Your task to perform on an android device: Open location settings Image 0: 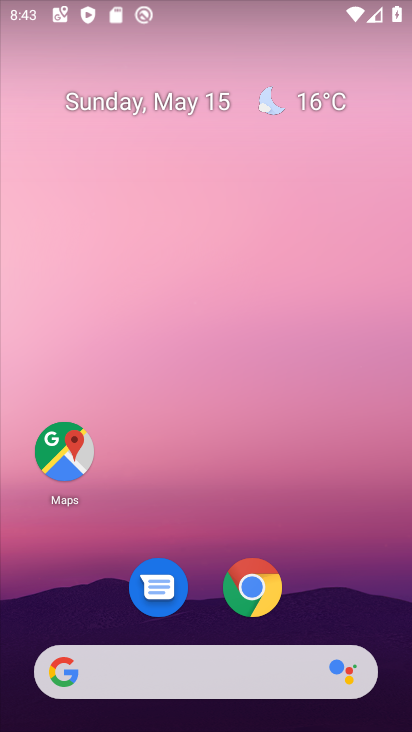
Step 0: drag from (316, 273) to (285, 22)
Your task to perform on an android device: Open location settings Image 1: 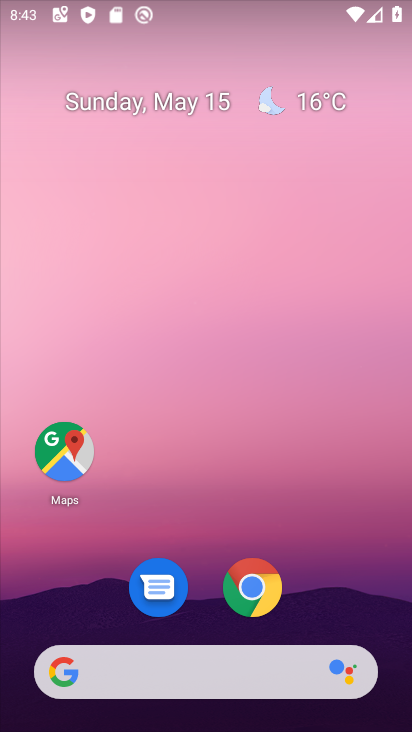
Step 1: drag from (344, 556) to (318, 0)
Your task to perform on an android device: Open location settings Image 2: 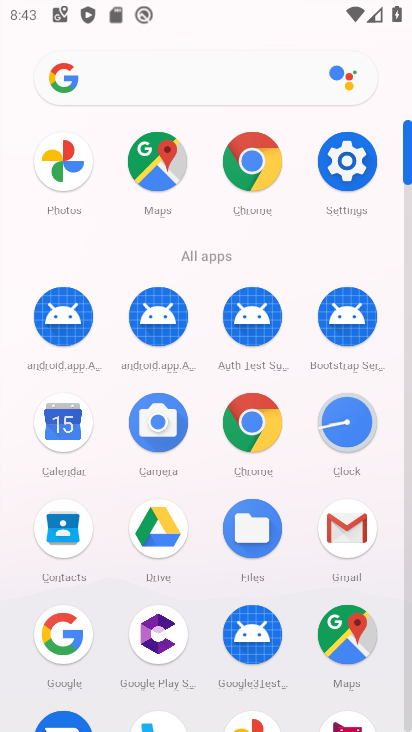
Step 2: click (346, 167)
Your task to perform on an android device: Open location settings Image 3: 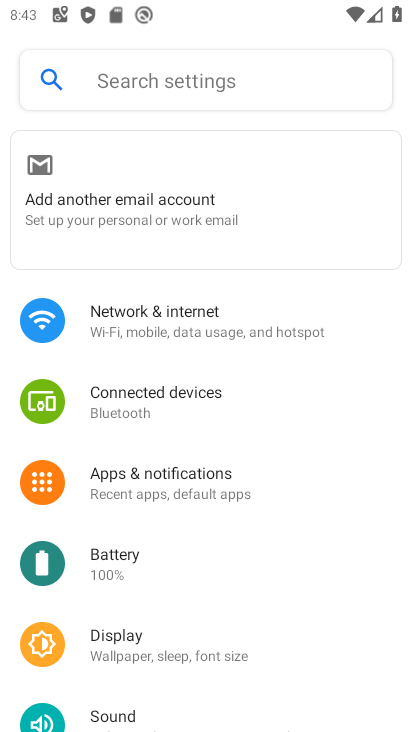
Step 3: drag from (214, 626) to (307, 182)
Your task to perform on an android device: Open location settings Image 4: 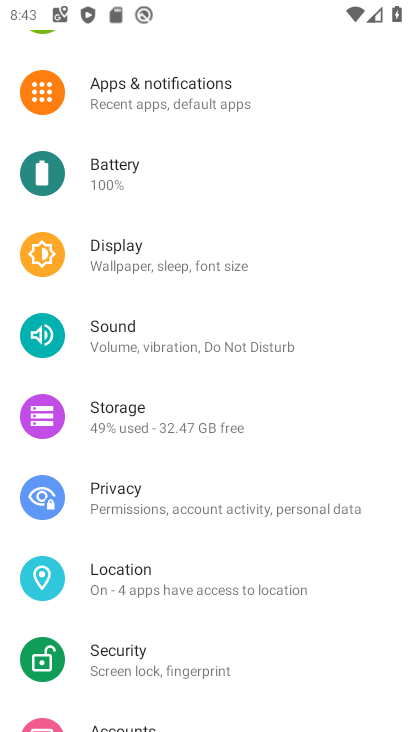
Step 4: click (186, 582)
Your task to perform on an android device: Open location settings Image 5: 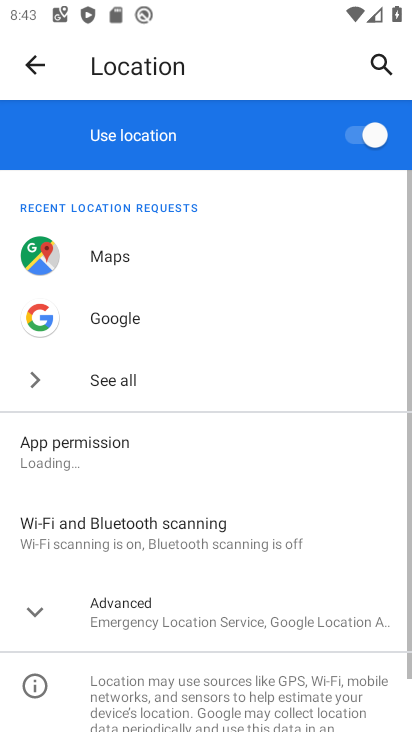
Step 5: task complete